Your task to perform on an android device: Do I have any events this weekend? Image 0: 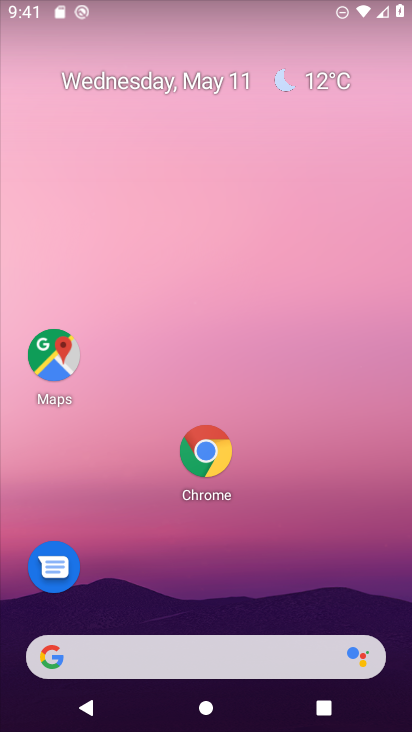
Step 0: press home button
Your task to perform on an android device: Do I have any events this weekend? Image 1: 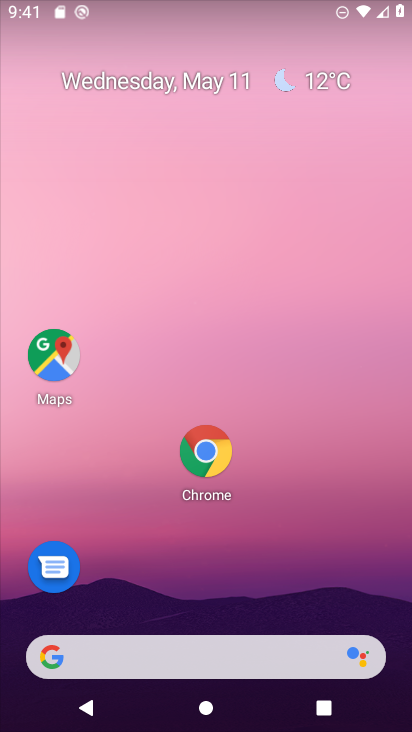
Step 1: drag from (140, 667) to (281, 225)
Your task to perform on an android device: Do I have any events this weekend? Image 2: 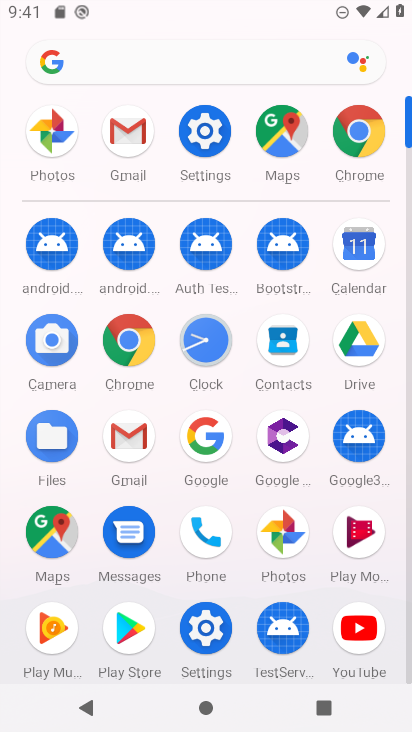
Step 2: click (349, 252)
Your task to perform on an android device: Do I have any events this weekend? Image 3: 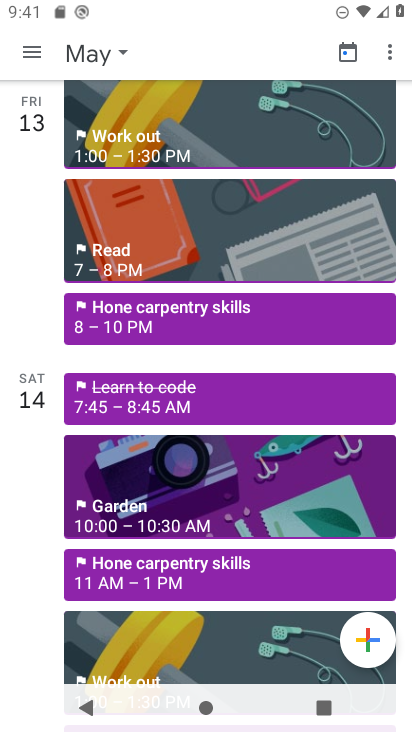
Step 3: click (82, 59)
Your task to perform on an android device: Do I have any events this weekend? Image 4: 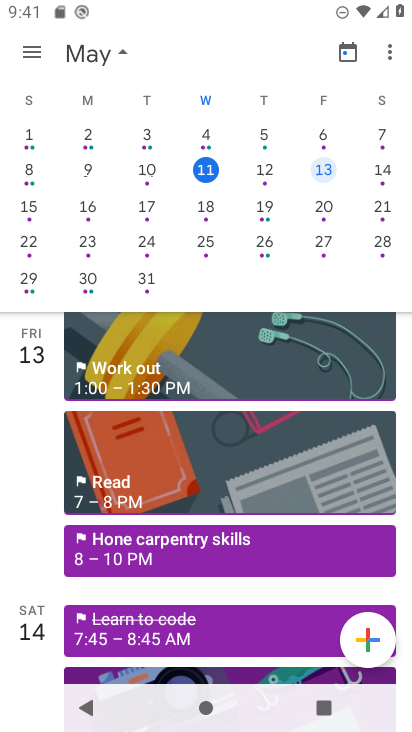
Step 4: click (387, 170)
Your task to perform on an android device: Do I have any events this weekend? Image 5: 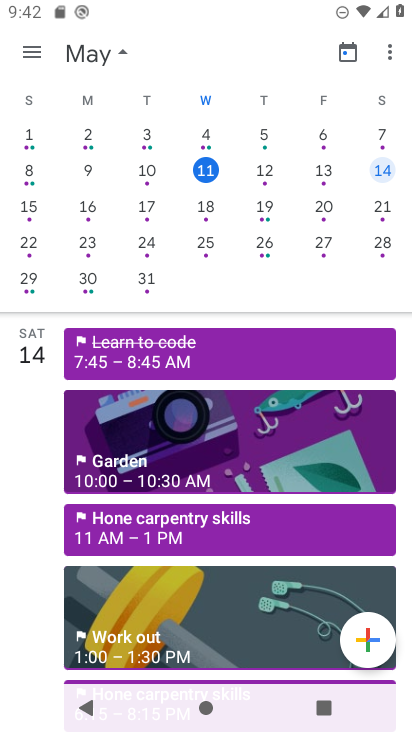
Step 5: click (33, 54)
Your task to perform on an android device: Do I have any events this weekend? Image 6: 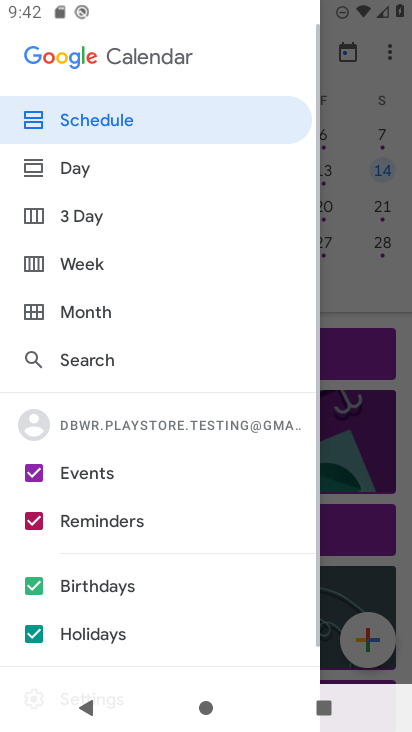
Step 6: click (70, 120)
Your task to perform on an android device: Do I have any events this weekend? Image 7: 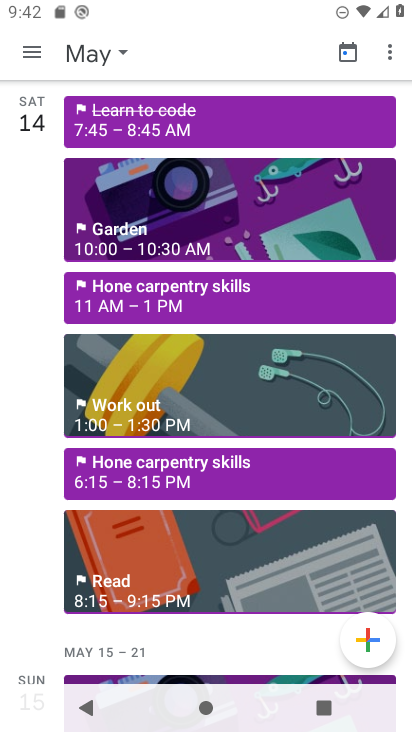
Step 7: click (171, 216)
Your task to perform on an android device: Do I have any events this weekend? Image 8: 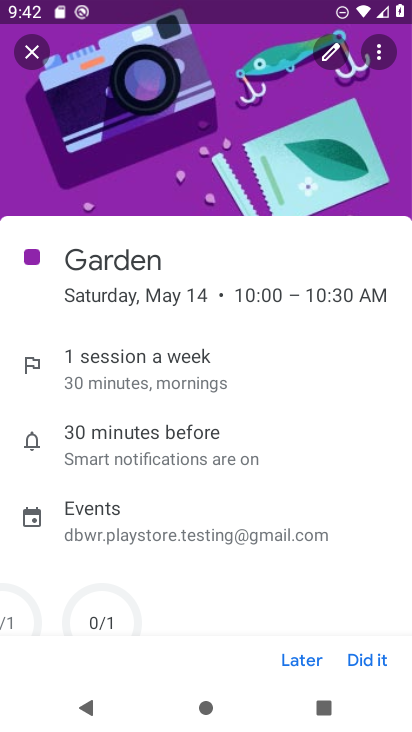
Step 8: task complete